Your task to perform on an android device: Search for bose soundsport free on target.com, select the first entry, and add it to the cart. Image 0: 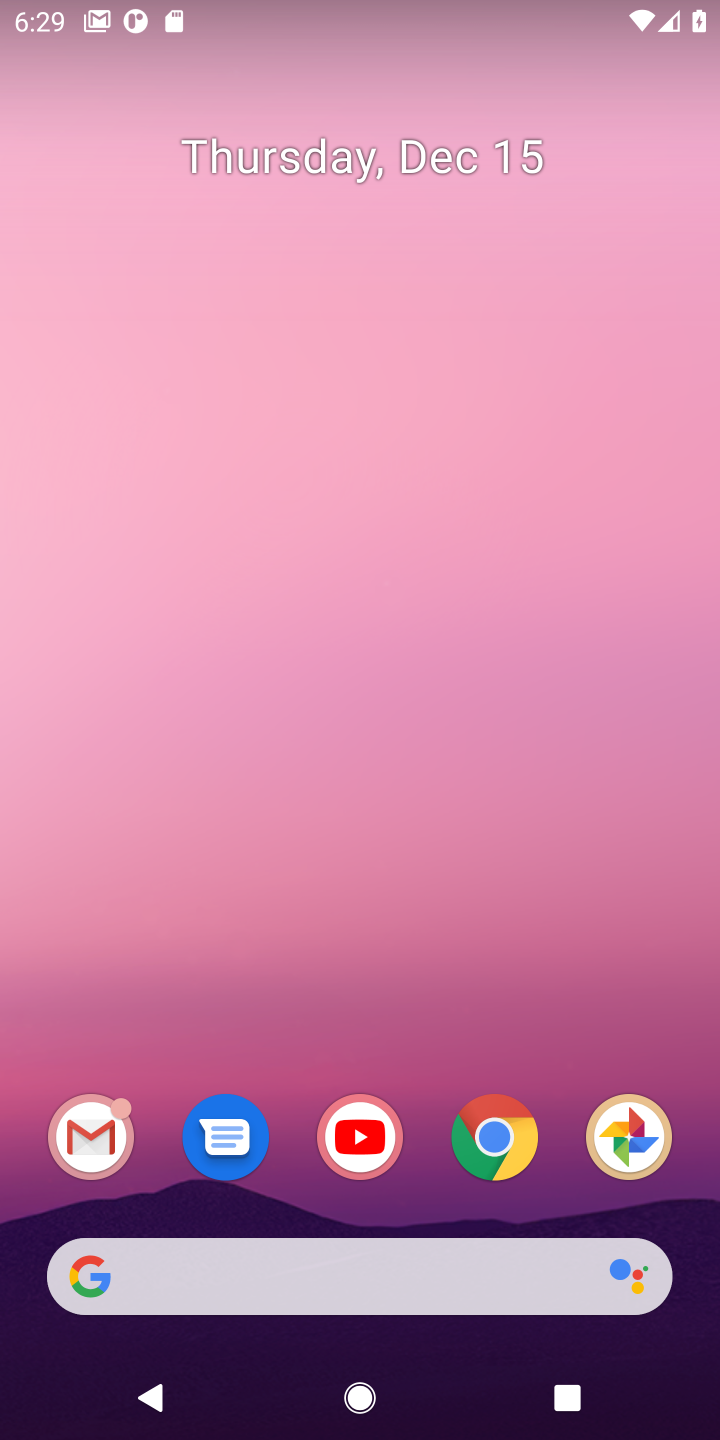
Step 0: drag from (276, 1271) to (278, 630)
Your task to perform on an android device: Search for bose soundsport free on target.com, select the first entry, and add it to the cart. Image 1: 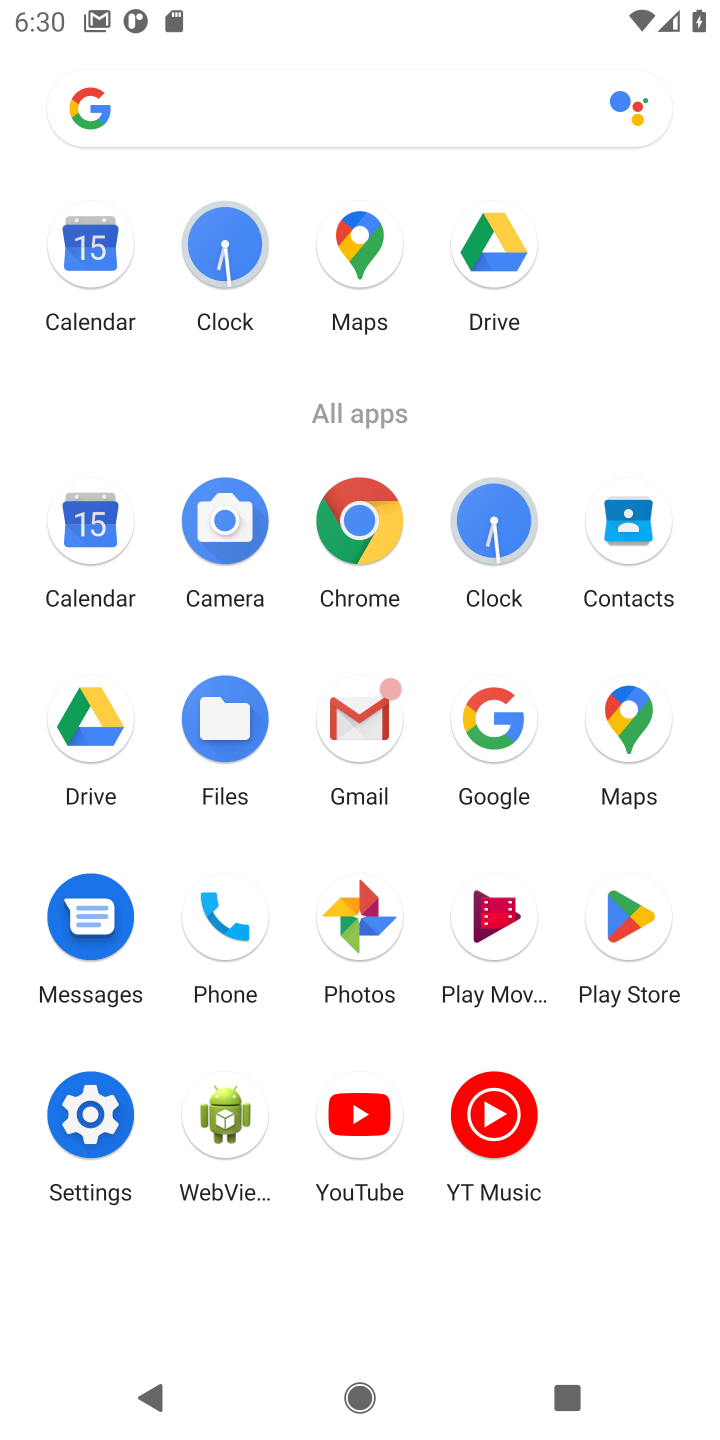
Step 1: click (501, 706)
Your task to perform on an android device: Search for bose soundsport free on target.com, select the first entry, and add it to the cart. Image 2: 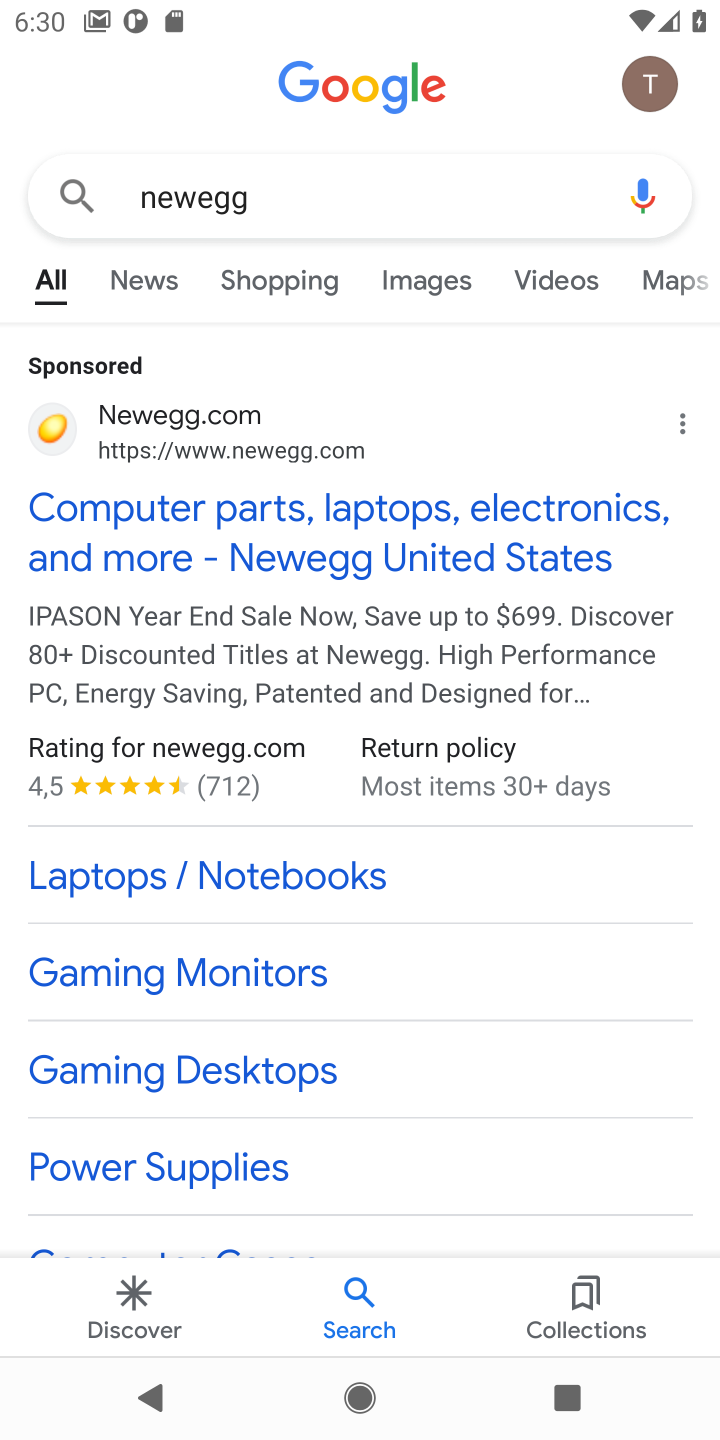
Step 2: press home button
Your task to perform on an android device: Search for bose soundsport free on target.com, select the first entry, and add it to the cart. Image 3: 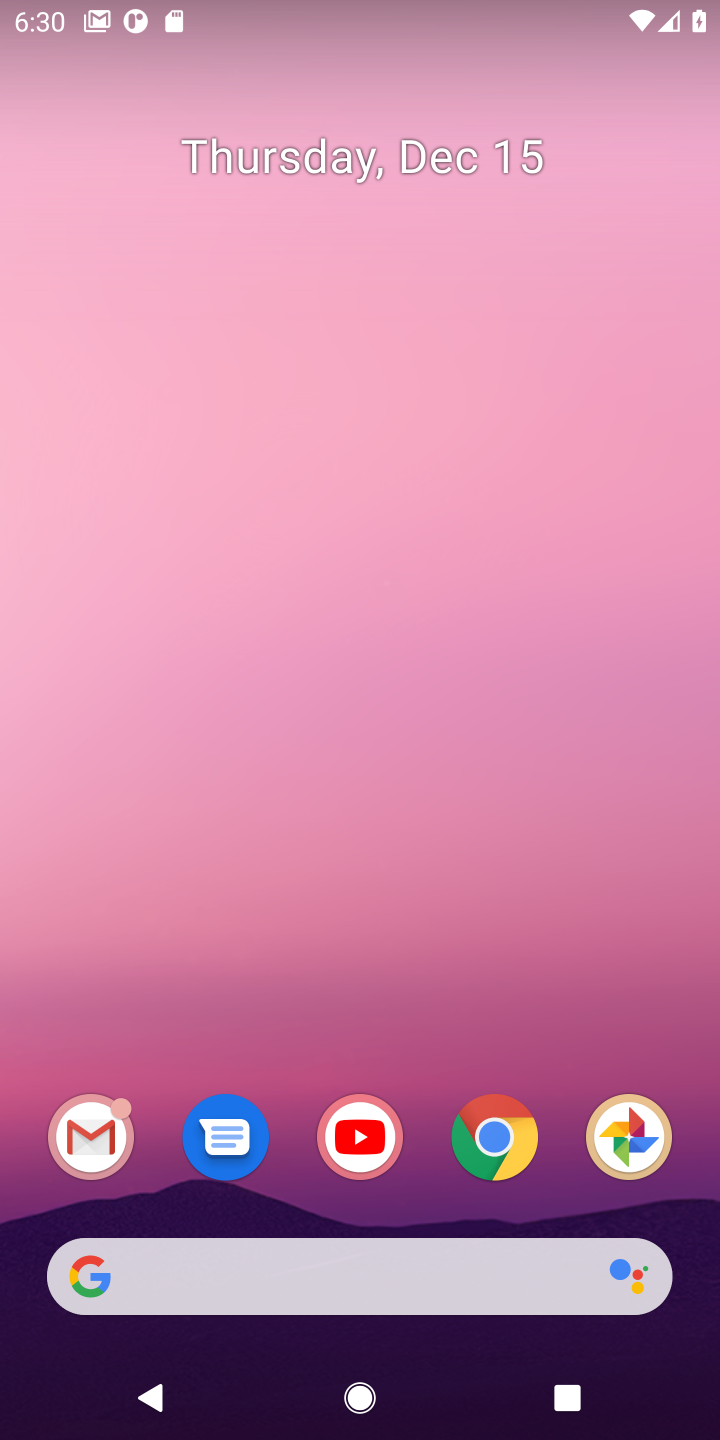
Step 3: drag from (219, 1264) to (263, 630)
Your task to perform on an android device: Search for bose soundsport free on target.com, select the first entry, and add it to the cart. Image 4: 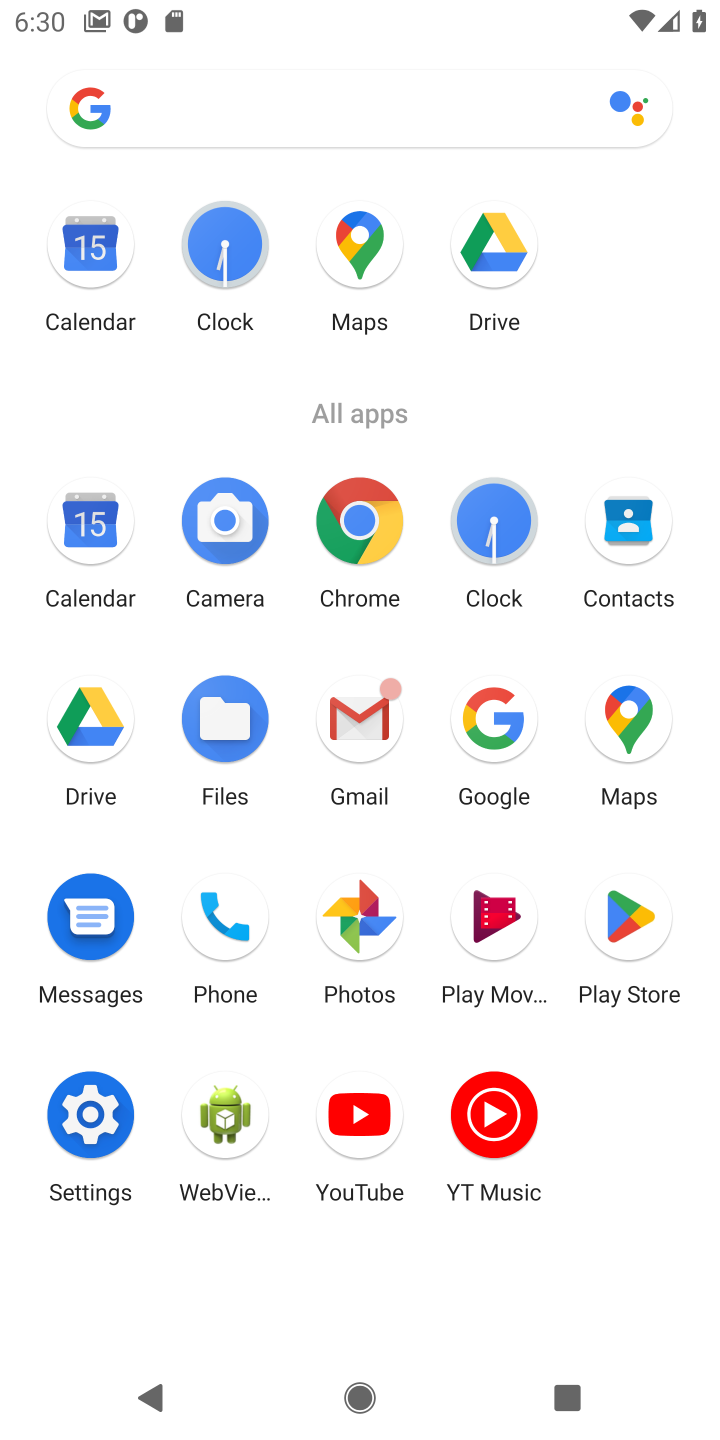
Step 4: click (475, 730)
Your task to perform on an android device: Search for bose soundsport free on target.com, select the first entry, and add it to the cart. Image 5: 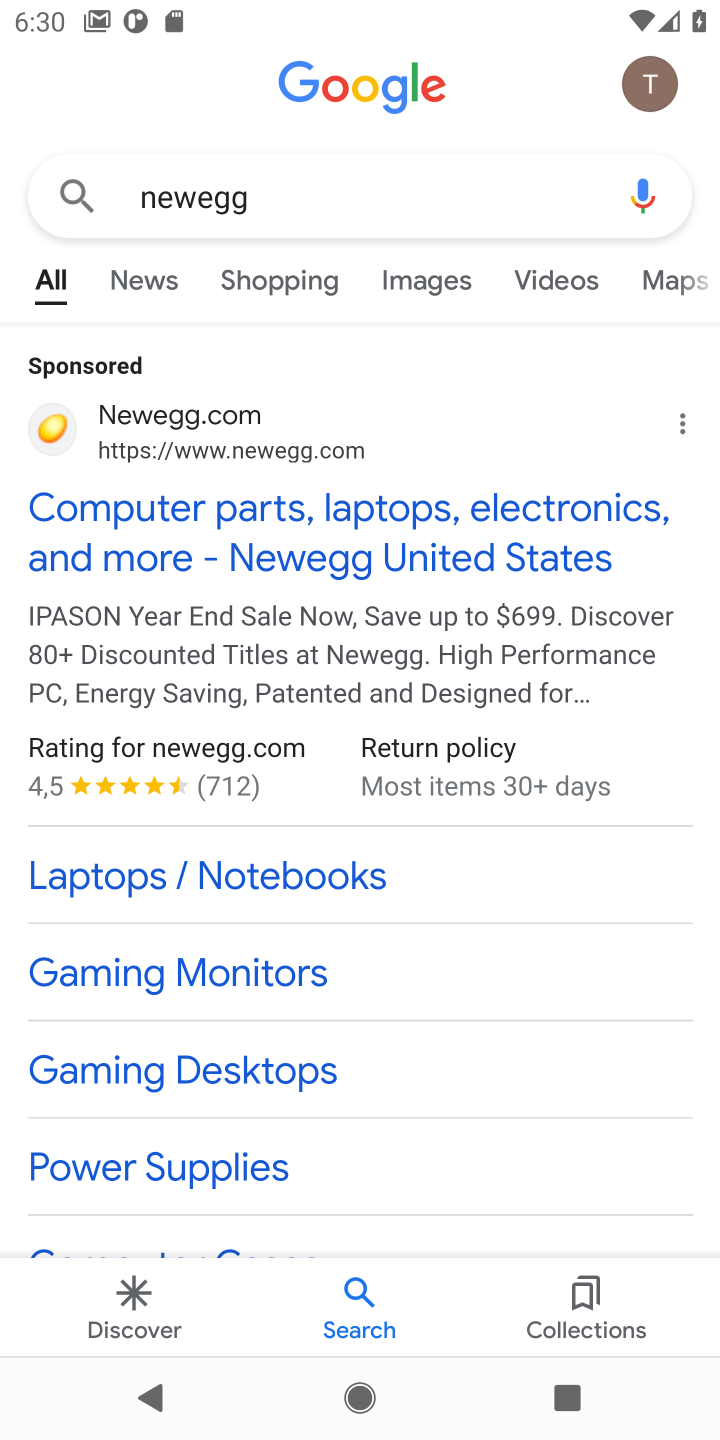
Step 5: click (238, 207)
Your task to perform on an android device: Search for bose soundsport free on target.com, select the first entry, and add it to the cart. Image 6: 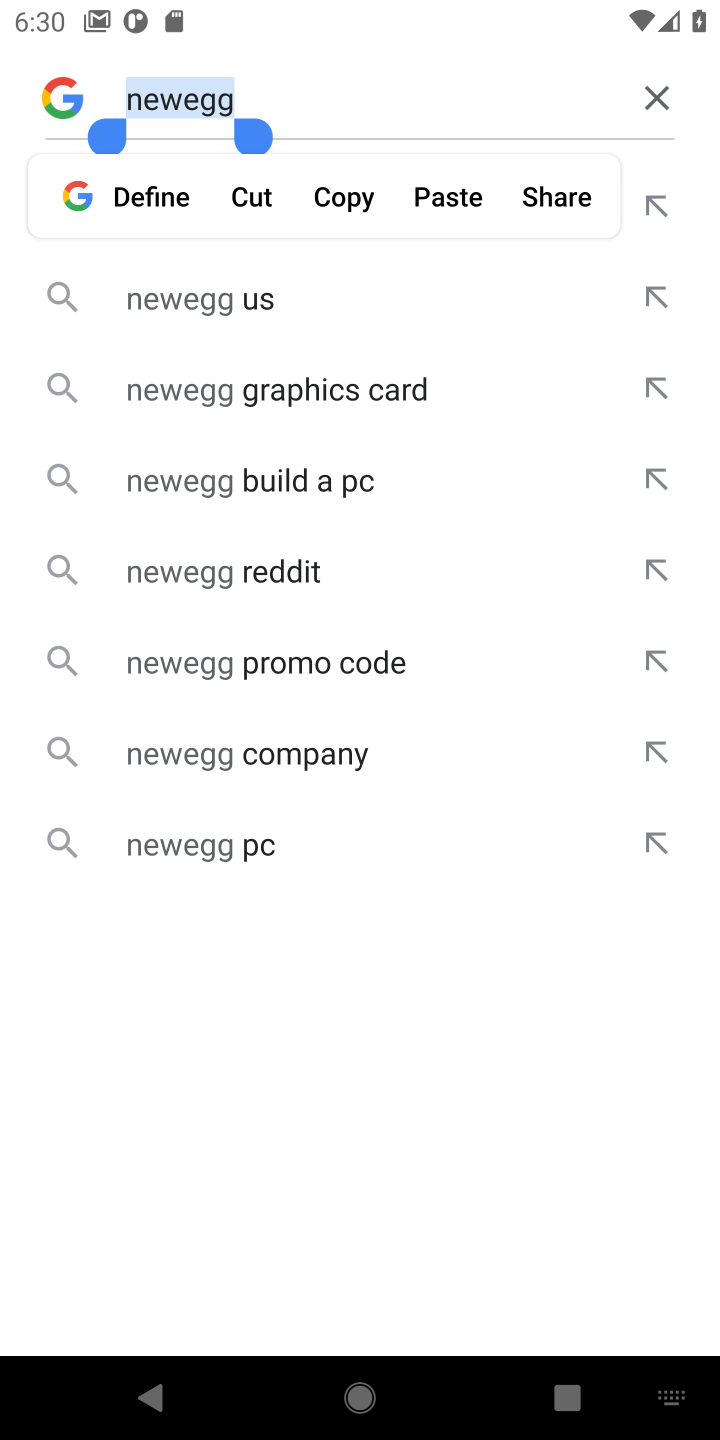
Step 6: click (648, 104)
Your task to perform on an android device: Search for bose soundsport free on target.com, select the first entry, and add it to the cart. Image 7: 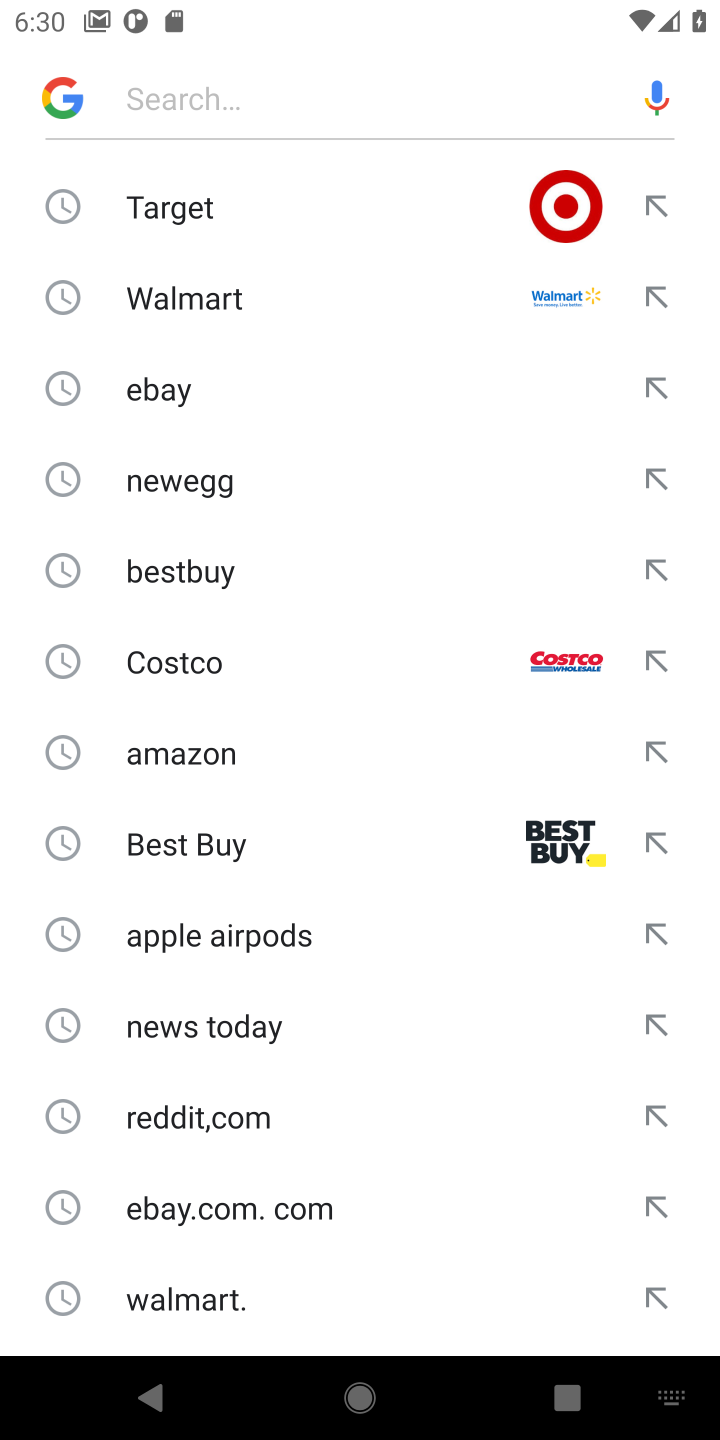
Step 7: click (178, 201)
Your task to perform on an android device: Search for bose soundsport free on target.com, select the first entry, and add it to the cart. Image 8: 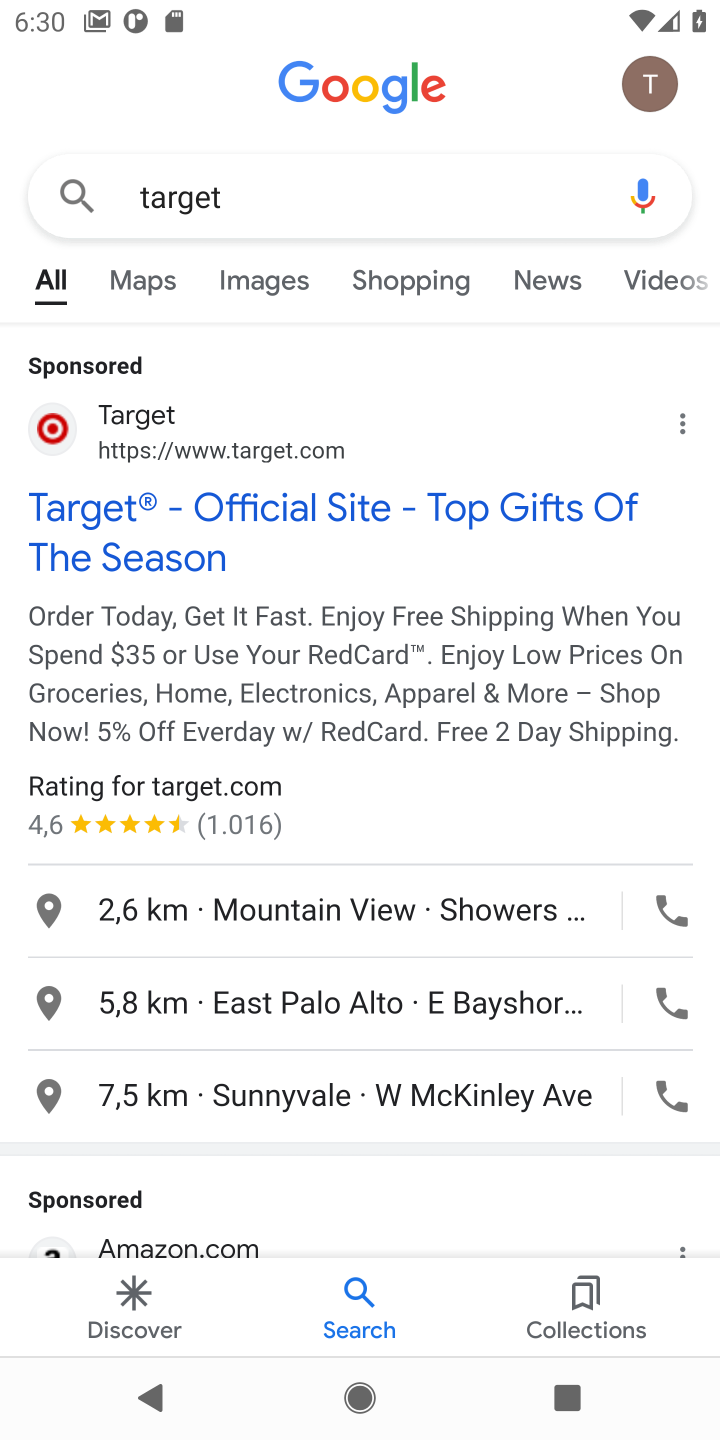
Step 8: click (219, 497)
Your task to perform on an android device: Search for bose soundsport free on target.com, select the first entry, and add it to the cart. Image 9: 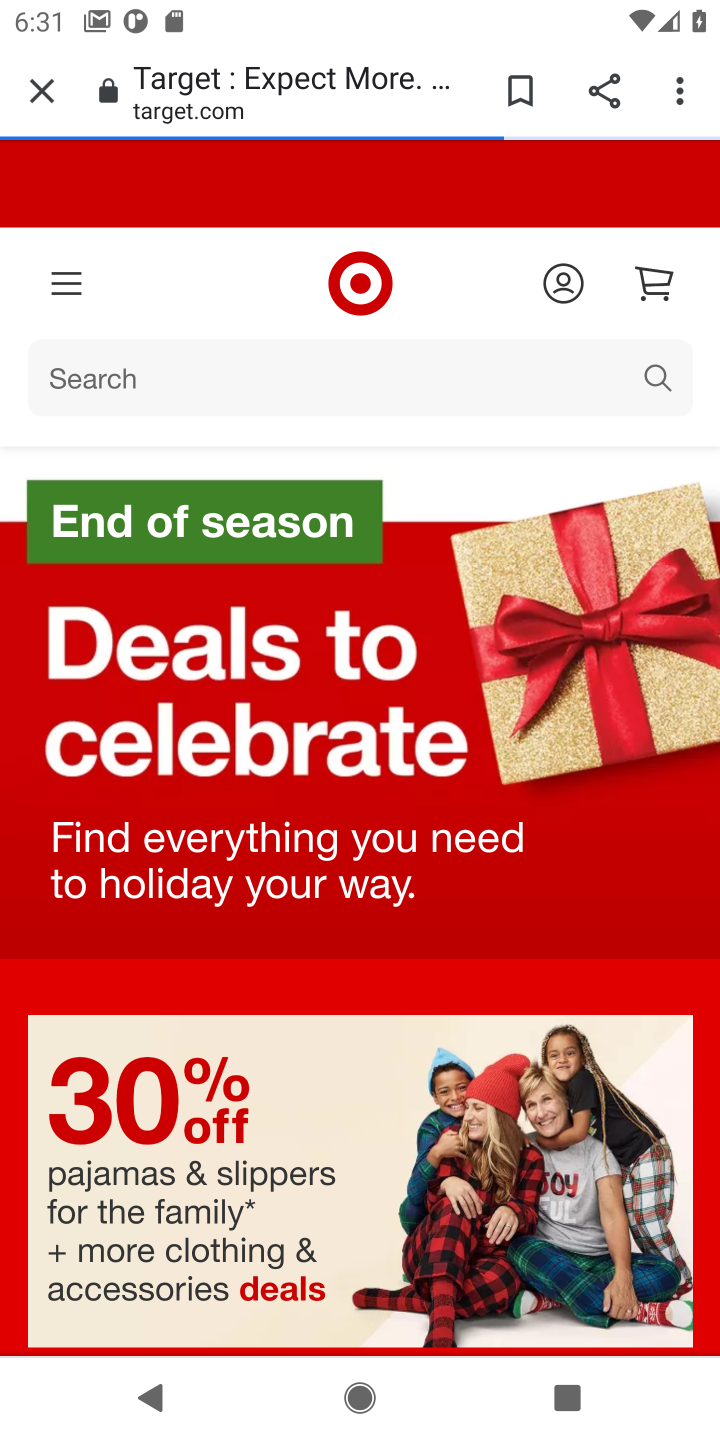
Step 9: click (145, 374)
Your task to perform on an android device: Search for bose soundsport free on target.com, select the first entry, and add it to the cart. Image 10: 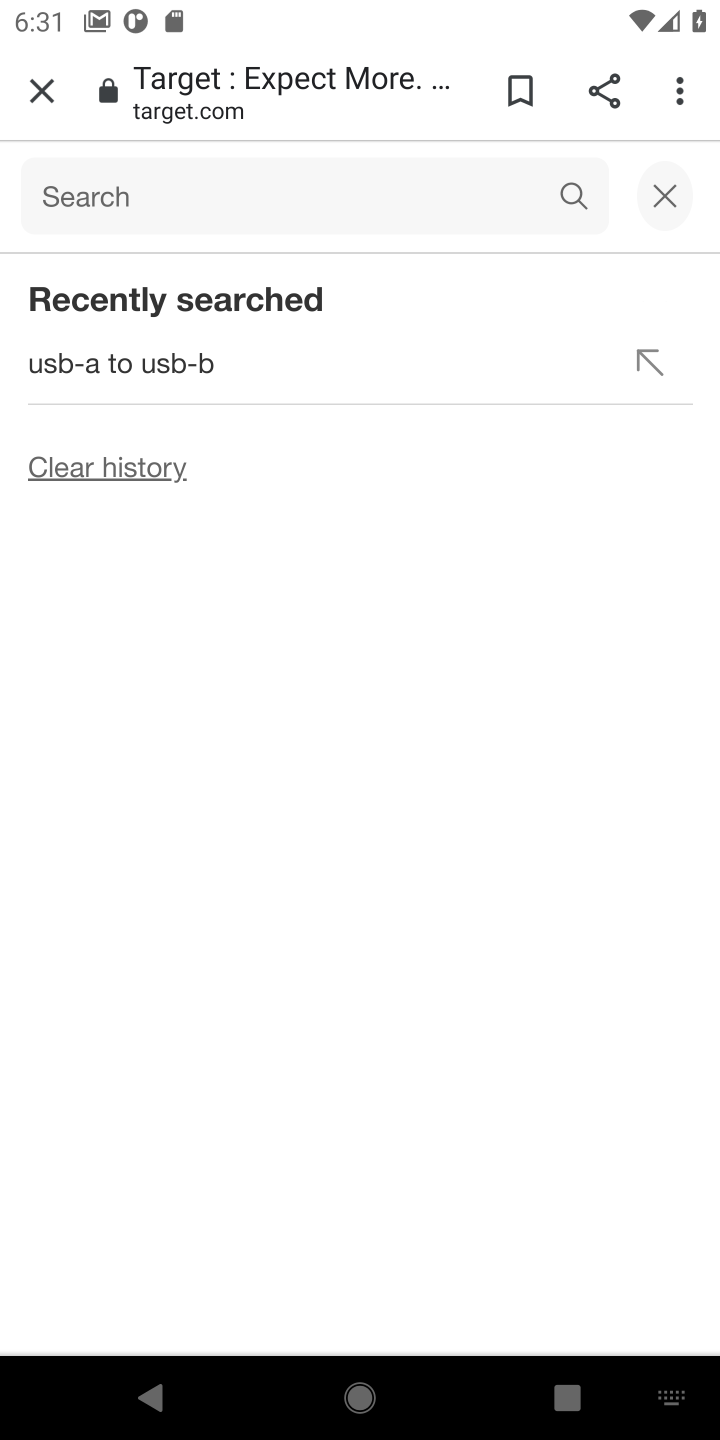
Step 10: type "bose soundsport free"
Your task to perform on an android device: Search for bose soundsport free on target.com, select the first entry, and add it to the cart. Image 11: 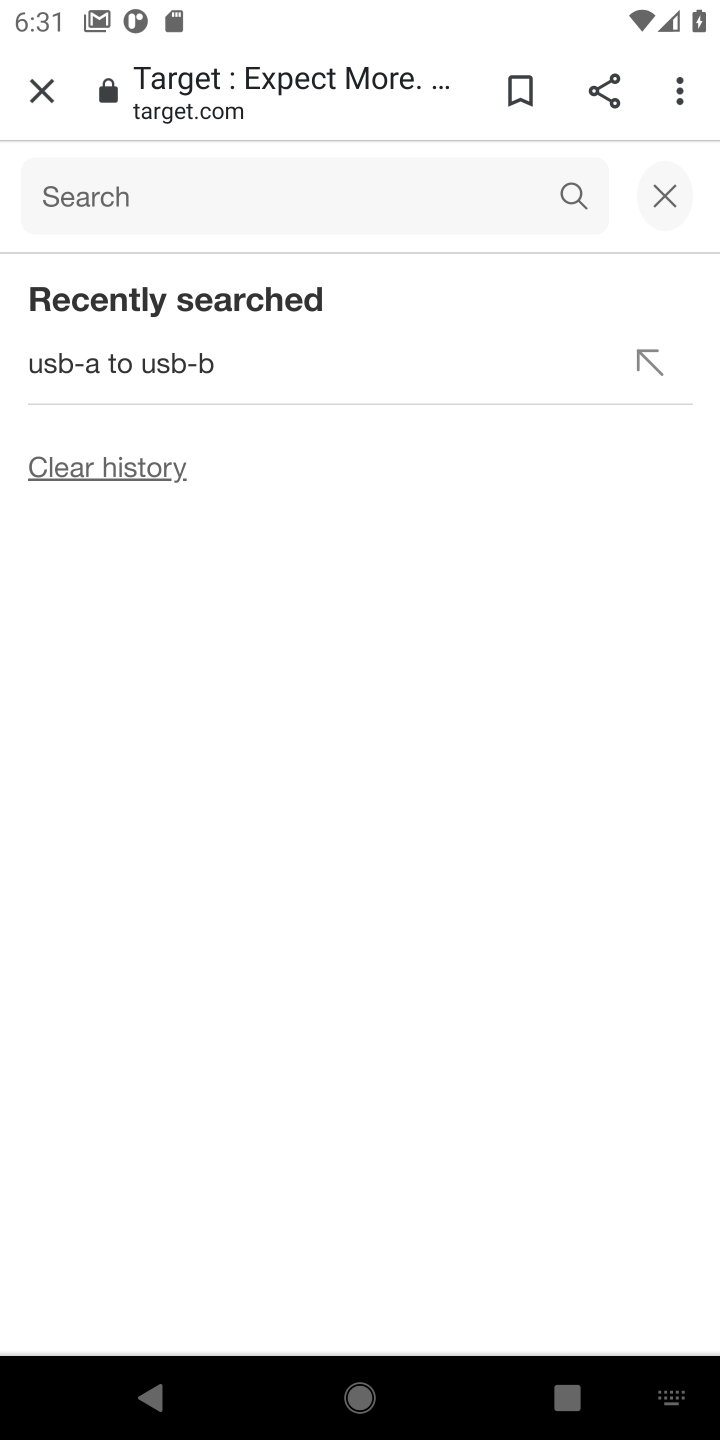
Step 11: click (567, 205)
Your task to perform on an android device: Search for bose soundsport free on target.com, select the first entry, and add it to the cart. Image 12: 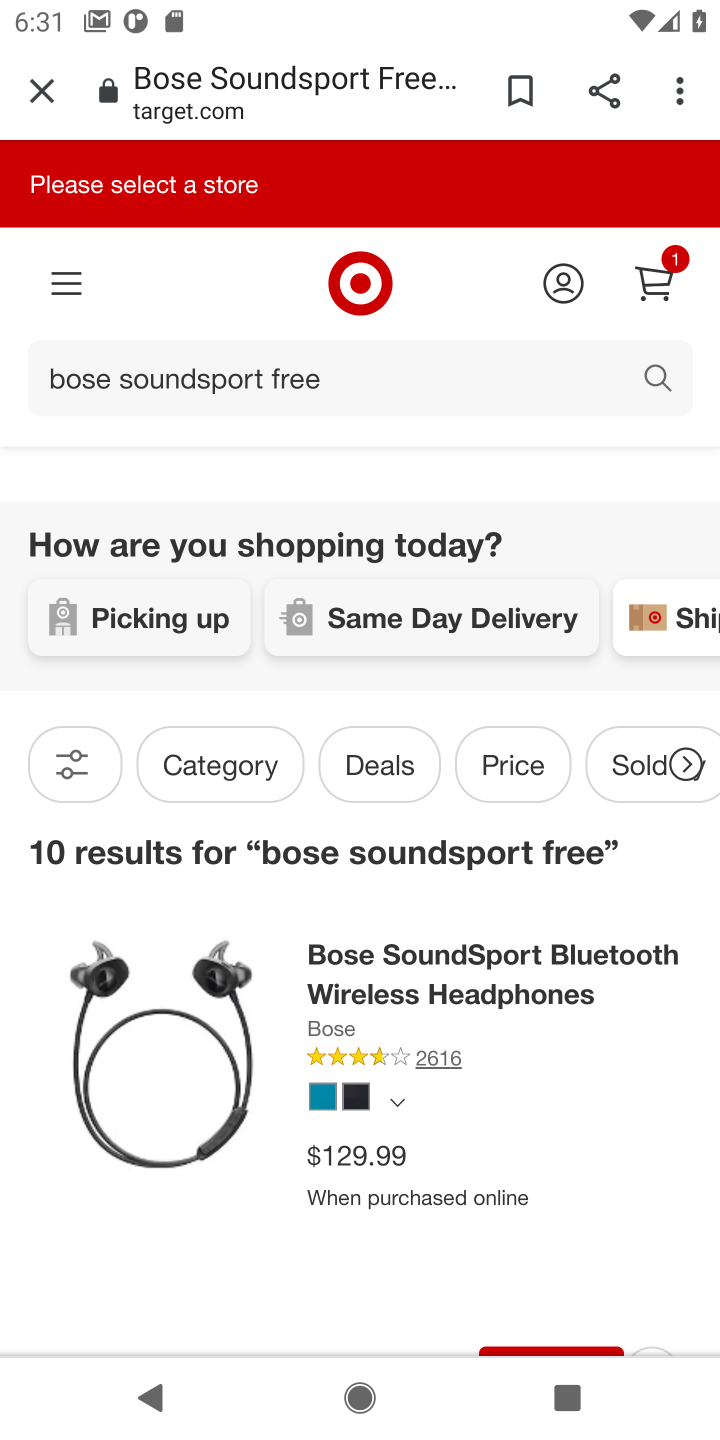
Step 12: drag from (247, 1142) to (247, 624)
Your task to perform on an android device: Search for bose soundsport free on target.com, select the first entry, and add it to the cart. Image 13: 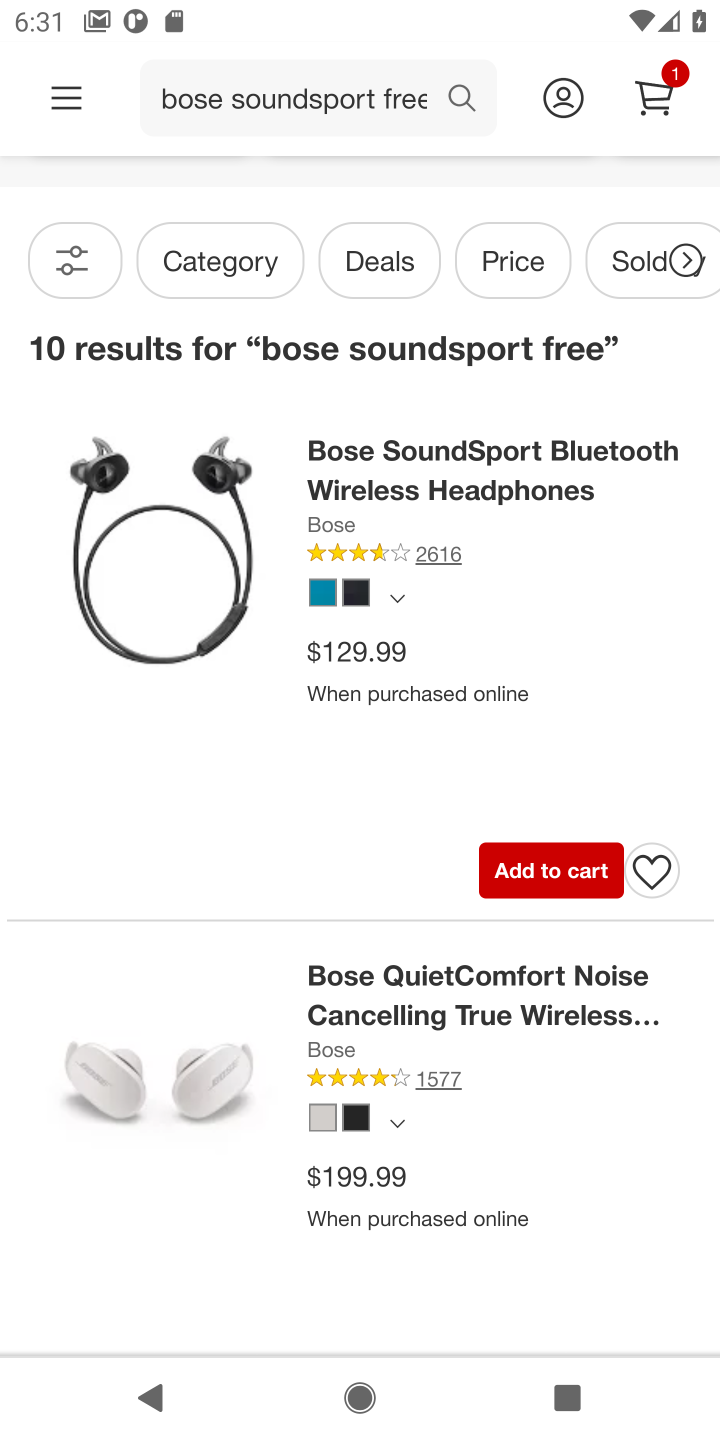
Step 13: click (505, 863)
Your task to perform on an android device: Search for bose soundsport free on target.com, select the first entry, and add it to the cart. Image 14: 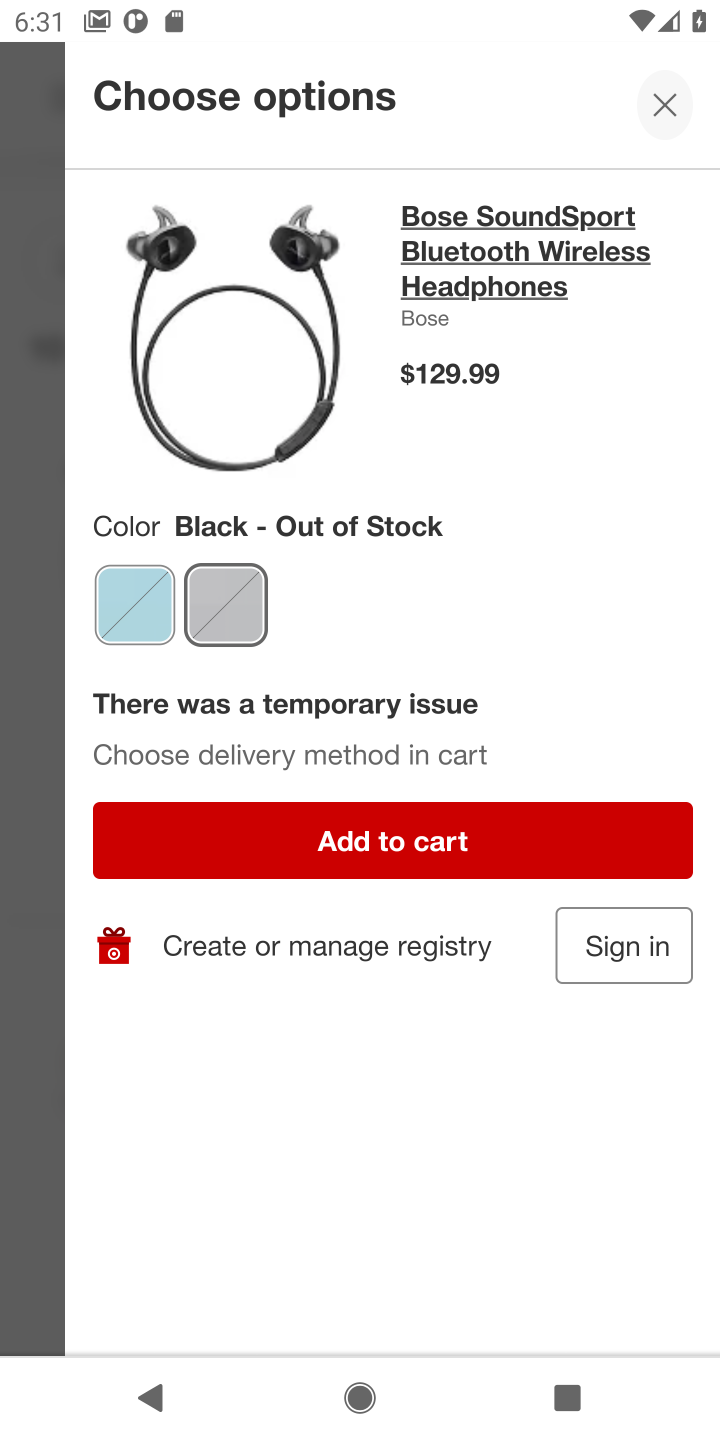
Step 14: click (142, 594)
Your task to perform on an android device: Search for bose soundsport free on target.com, select the first entry, and add it to the cart. Image 15: 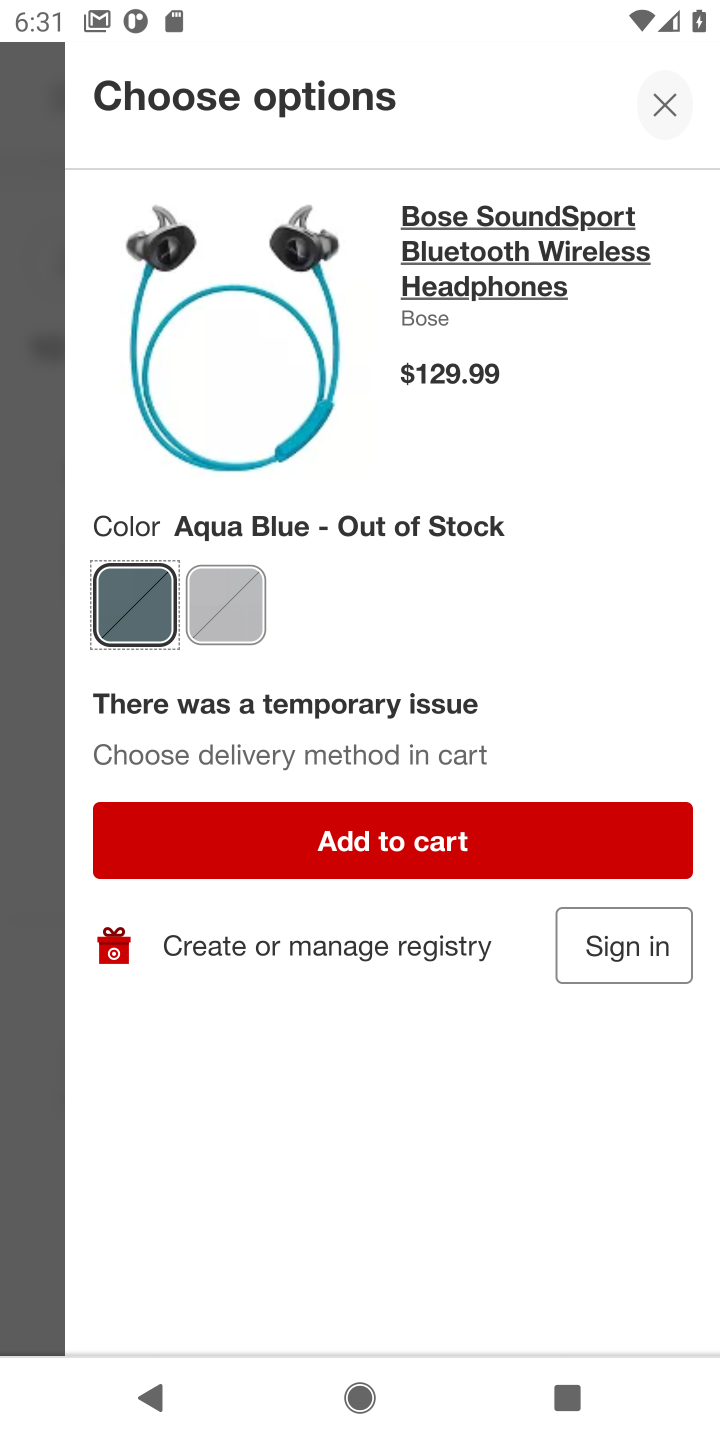
Step 15: click (303, 856)
Your task to perform on an android device: Search for bose soundsport free on target.com, select the first entry, and add it to the cart. Image 16: 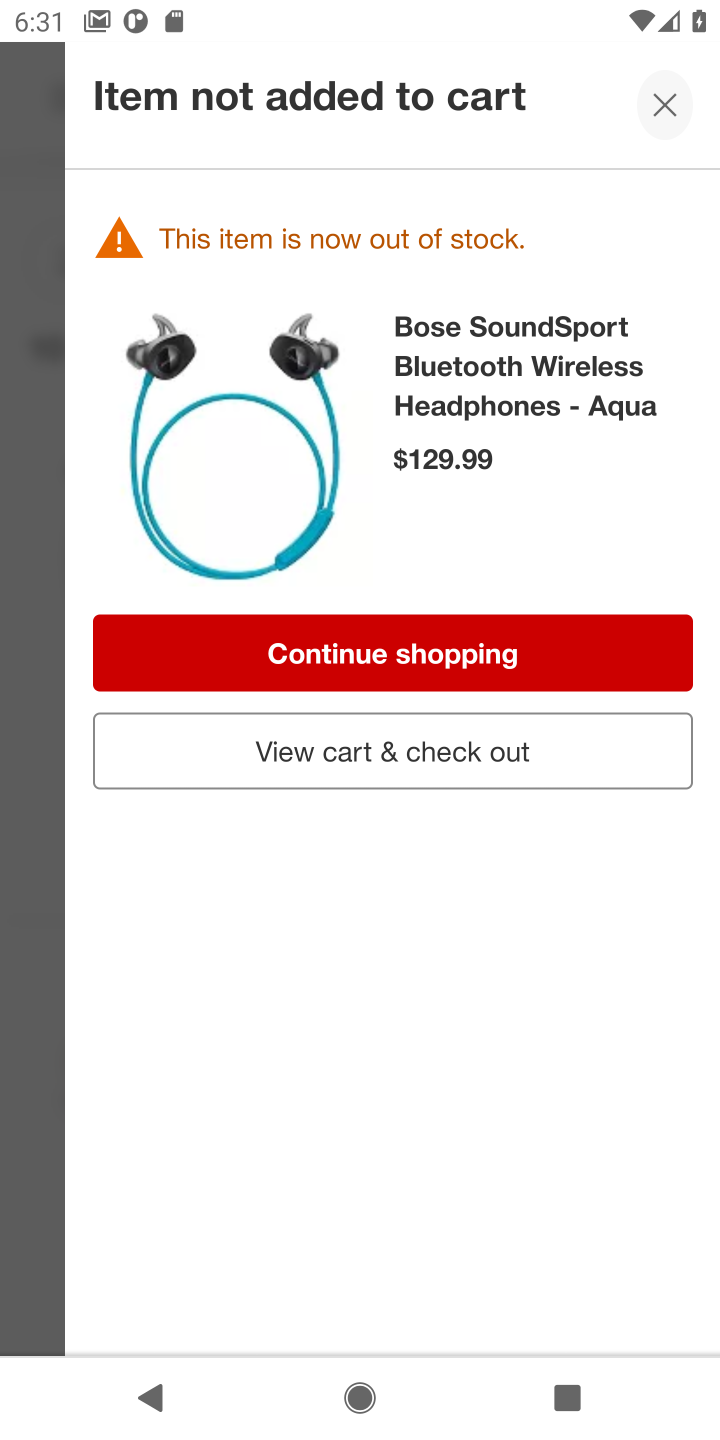
Step 16: task complete